Your task to perform on an android device: open a bookmark in the chrome app Image 0: 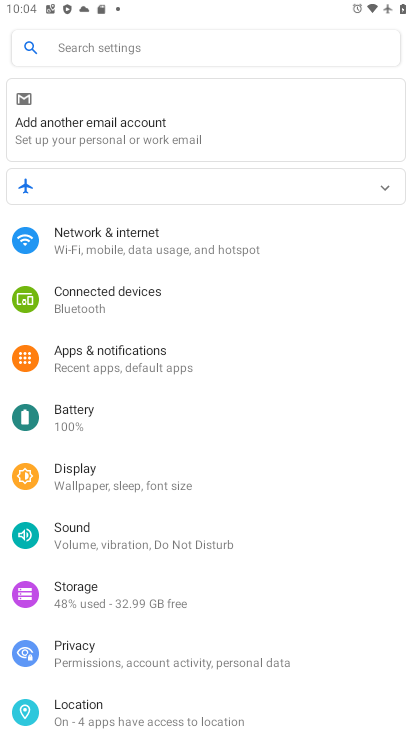
Step 0: press home button
Your task to perform on an android device: open a bookmark in the chrome app Image 1: 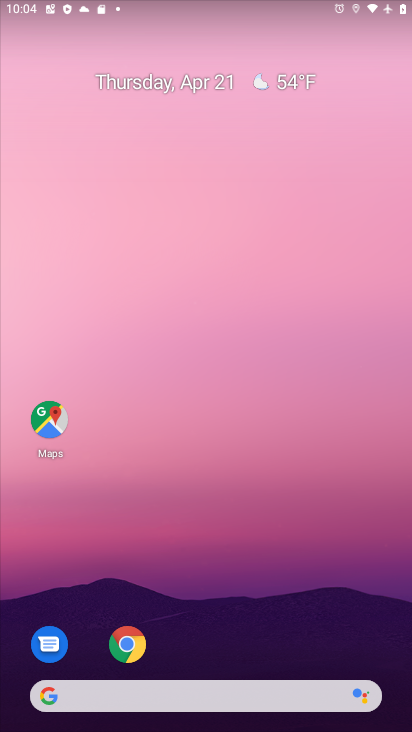
Step 1: click (133, 641)
Your task to perform on an android device: open a bookmark in the chrome app Image 2: 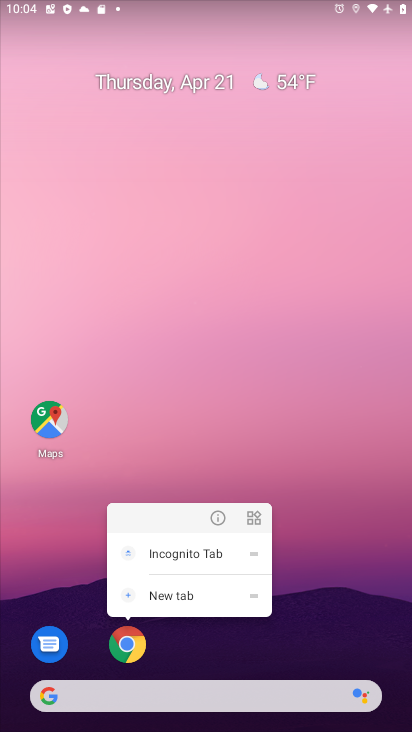
Step 2: click (119, 647)
Your task to perform on an android device: open a bookmark in the chrome app Image 3: 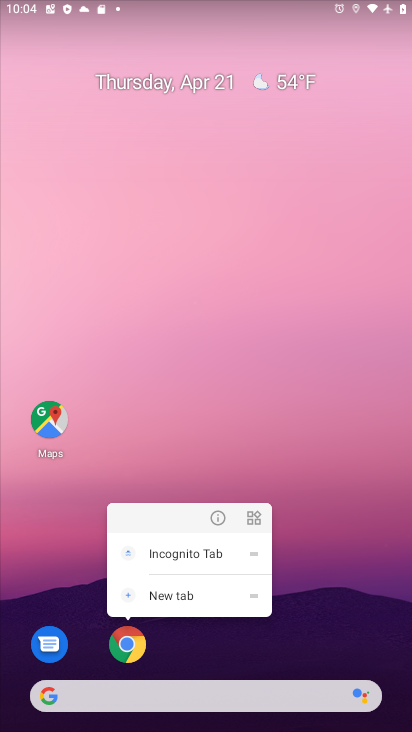
Step 3: click (122, 647)
Your task to perform on an android device: open a bookmark in the chrome app Image 4: 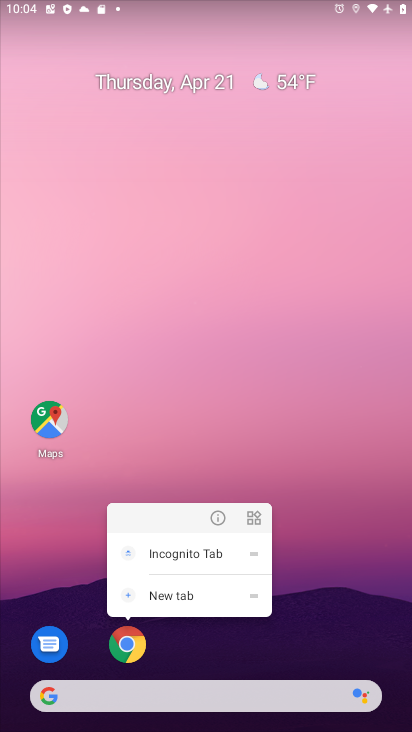
Step 4: click (138, 649)
Your task to perform on an android device: open a bookmark in the chrome app Image 5: 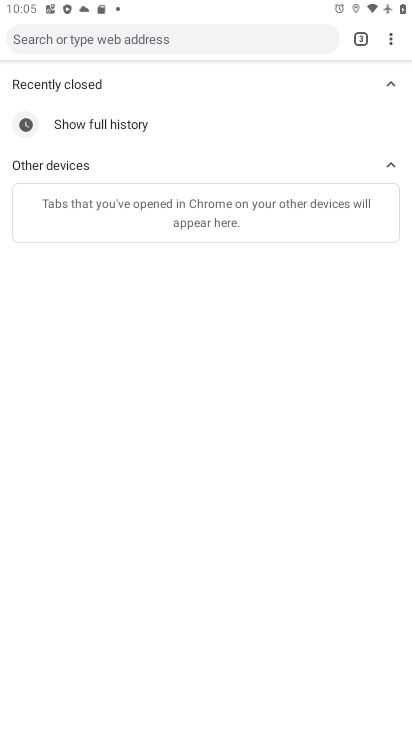
Step 5: task complete